Your task to perform on an android device: turn pop-ups on in chrome Image 0: 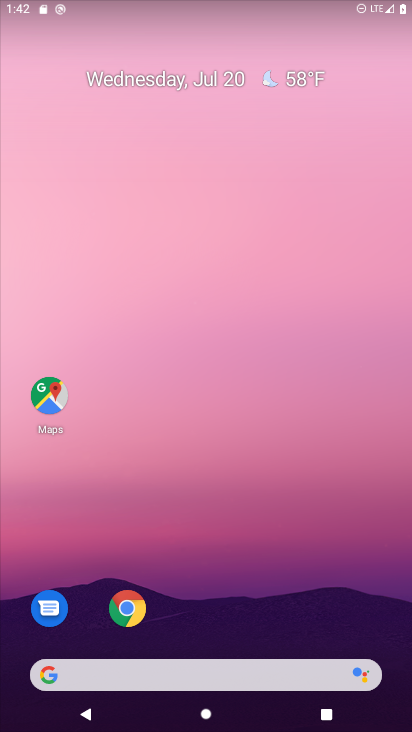
Step 0: drag from (242, 700) to (291, 226)
Your task to perform on an android device: turn pop-ups on in chrome Image 1: 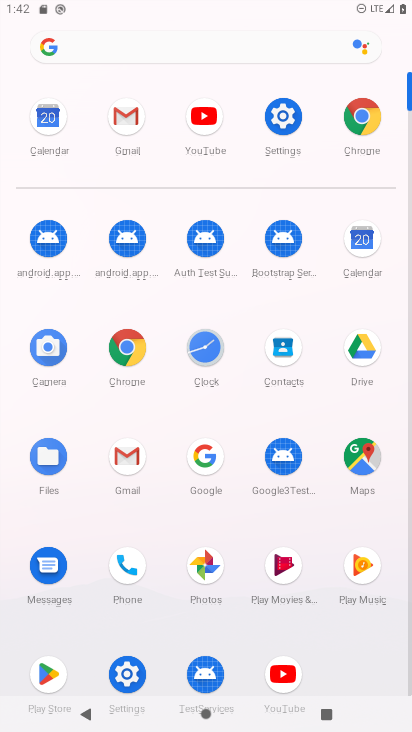
Step 1: click (123, 349)
Your task to perform on an android device: turn pop-ups on in chrome Image 2: 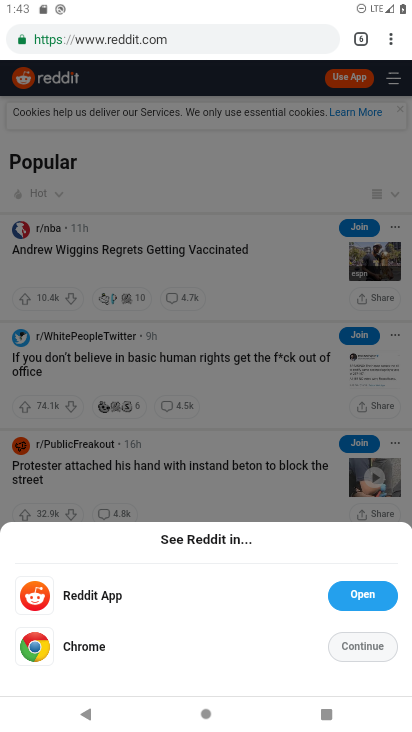
Step 2: click (389, 41)
Your task to perform on an android device: turn pop-ups on in chrome Image 3: 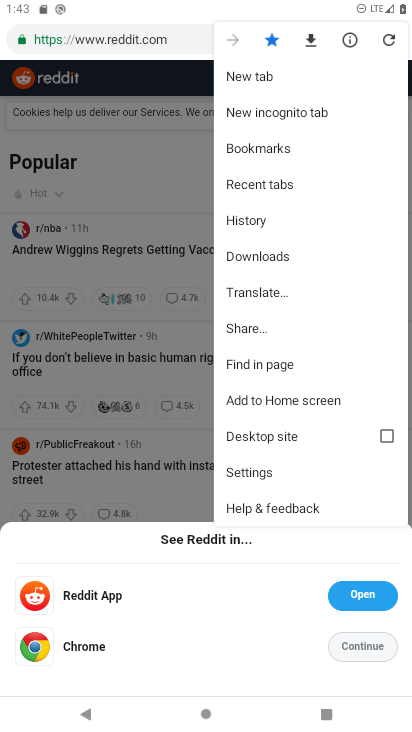
Step 3: click (259, 473)
Your task to perform on an android device: turn pop-ups on in chrome Image 4: 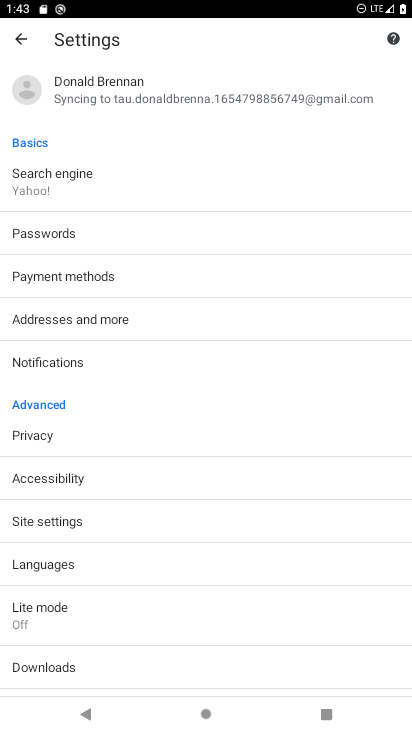
Step 4: click (41, 519)
Your task to perform on an android device: turn pop-ups on in chrome Image 5: 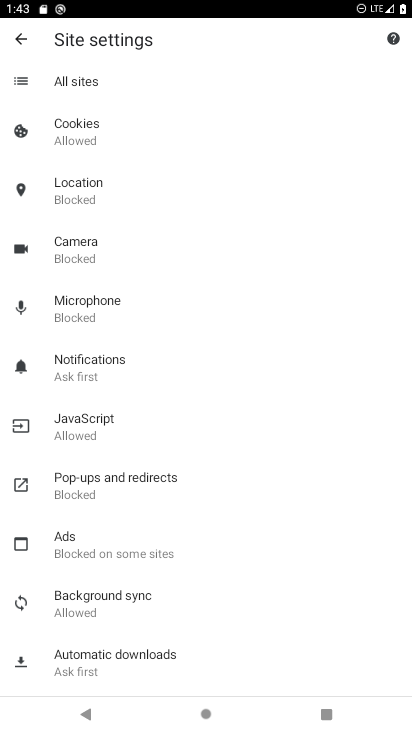
Step 5: click (114, 472)
Your task to perform on an android device: turn pop-ups on in chrome Image 6: 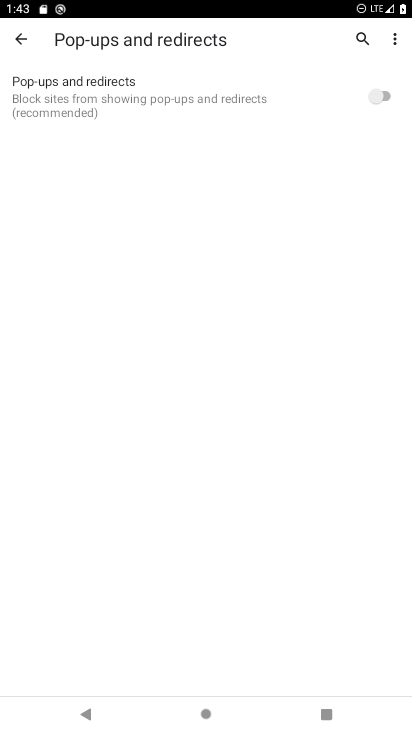
Step 6: click (383, 93)
Your task to perform on an android device: turn pop-ups on in chrome Image 7: 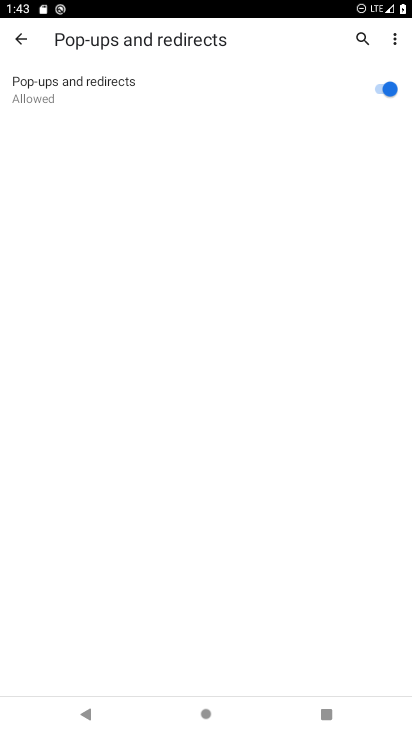
Step 7: task complete